Your task to perform on an android device: What's the weather today? Image 0: 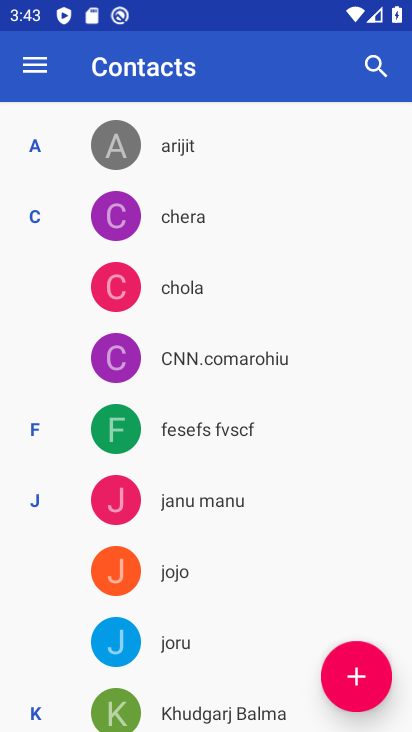
Step 0: press home button
Your task to perform on an android device: What's the weather today? Image 1: 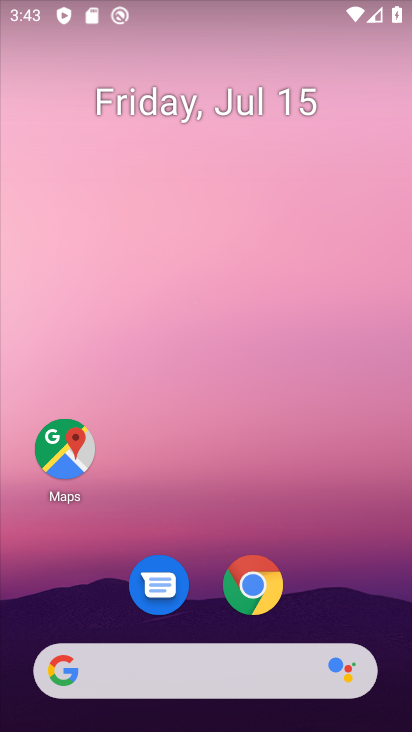
Step 1: click (121, 670)
Your task to perform on an android device: What's the weather today? Image 2: 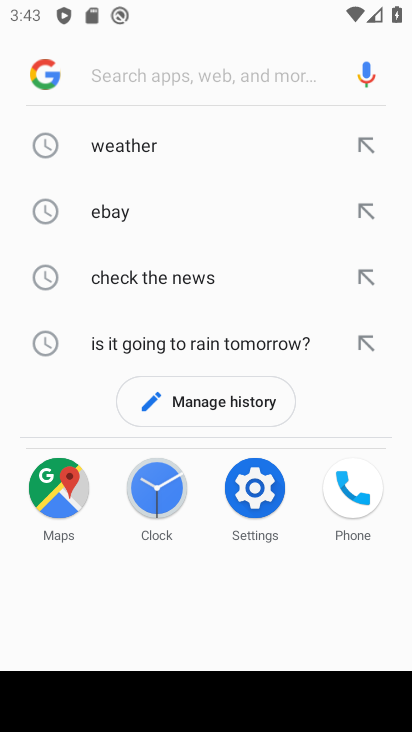
Step 2: click (130, 144)
Your task to perform on an android device: What's the weather today? Image 3: 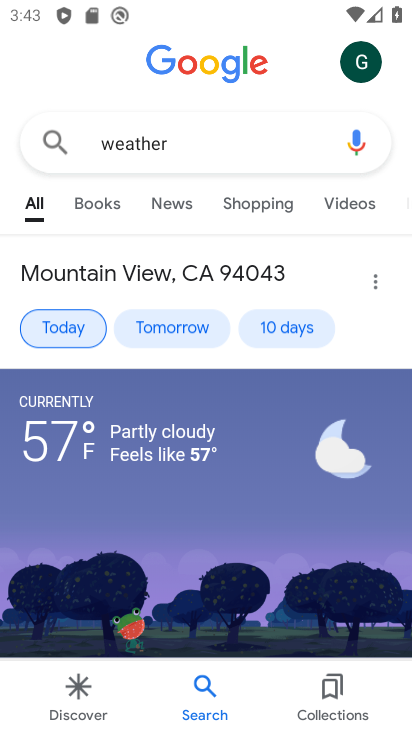
Step 3: click (81, 334)
Your task to perform on an android device: What's the weather today? Image 4: 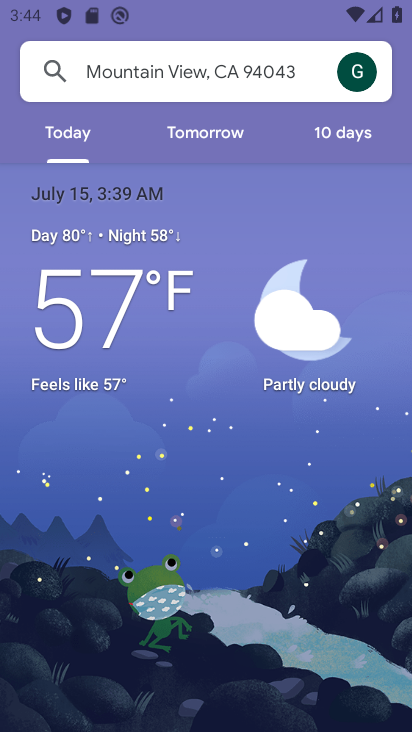
Step 4: task complete